Your task to perform on an android device: Open my contact list Image 0: 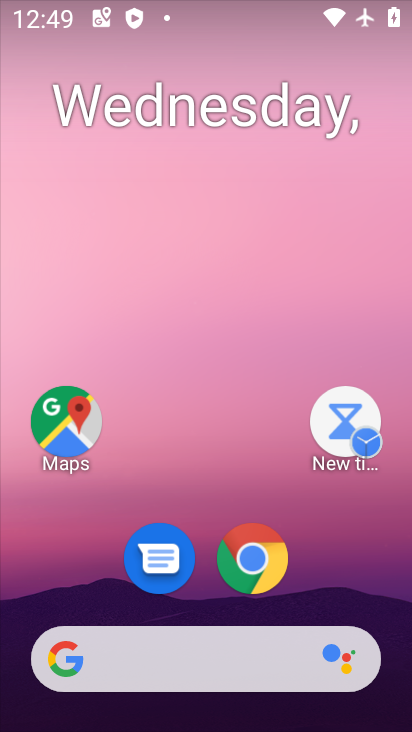
Step 0: drag from (221, 580) to (41, 30)
Your task to perform on an android device: Open my contact list Image 1: 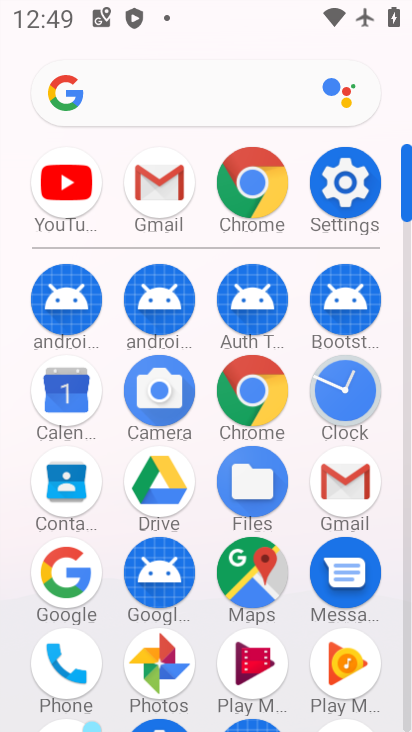
Step 1: drag from (173, 325) to (154, 194)
Your task to perform on an android device: Open my contact list Image 2: 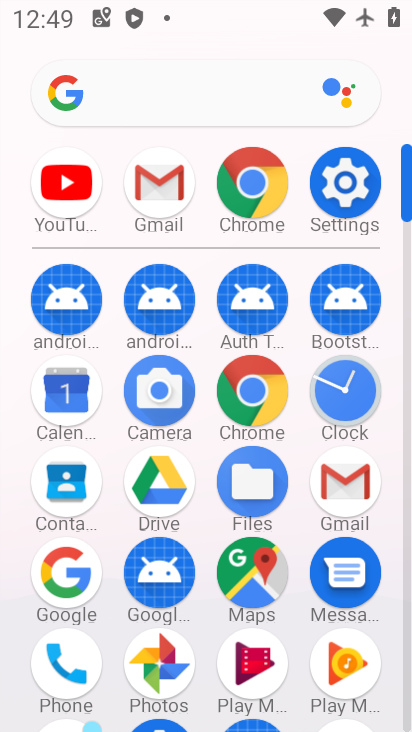
Step 2: click (183, 242)
Your task to perform on an android device: Open my contact list Image 3: 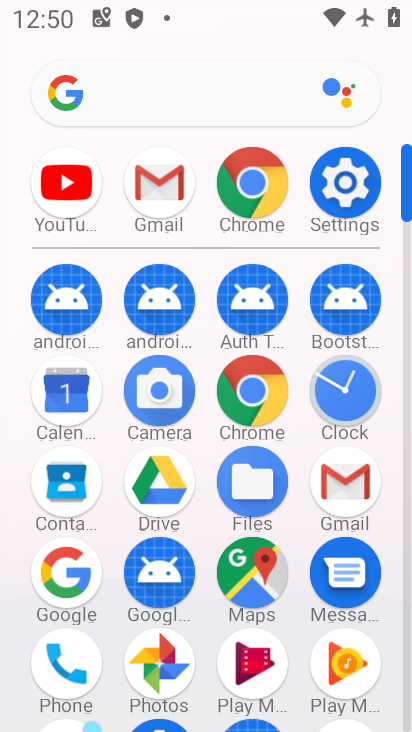
Step 3: click (76, 472)
Your task to perform on an android device: Open my contact list Image 4: 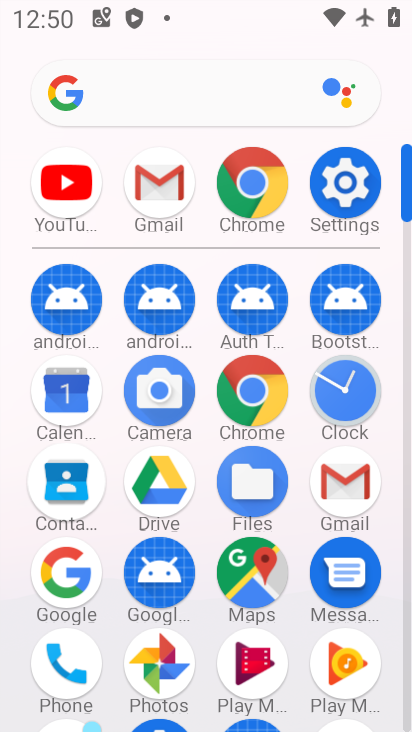
Step 4: click (75, 473)
Your task to perform on an android device: Open my contact list Image 5: 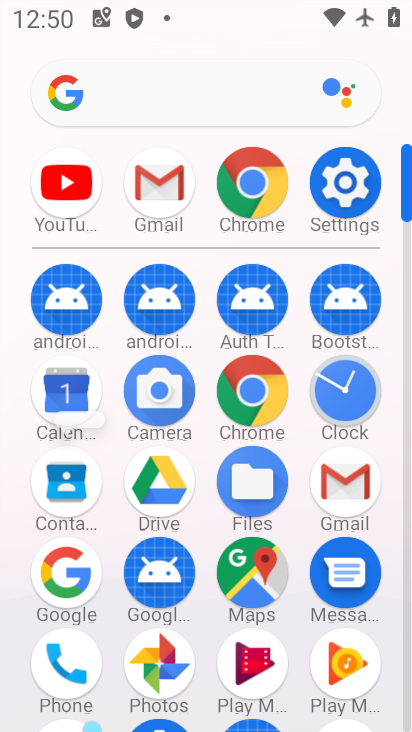
Step 5: click (68, 473)
Your task to perform on an android device: Open my contact list Image 6: 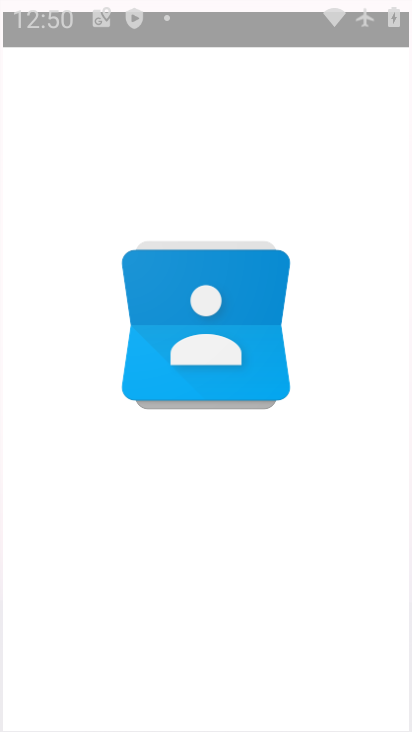
Step 6: click (71, 484)
Your task to perform on an android device: Open my contact list Image 7: 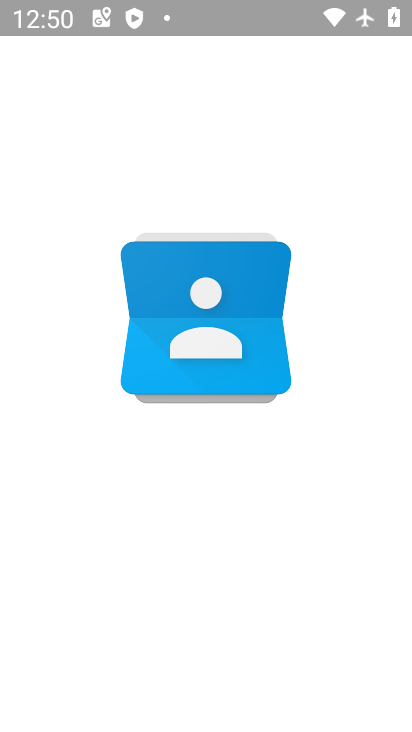
Step 7: click (72, 487)
Your task to perform on an android device: Open my contact list Image 8: 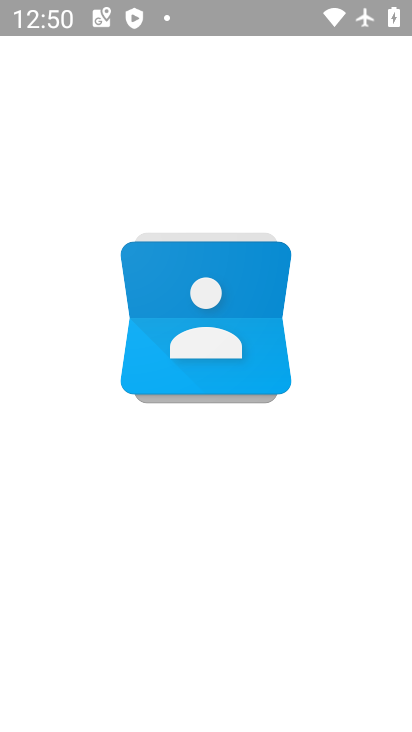
Step 8: click (72, 486)
Your task to perform on an android device: Open my contact list Image 9: 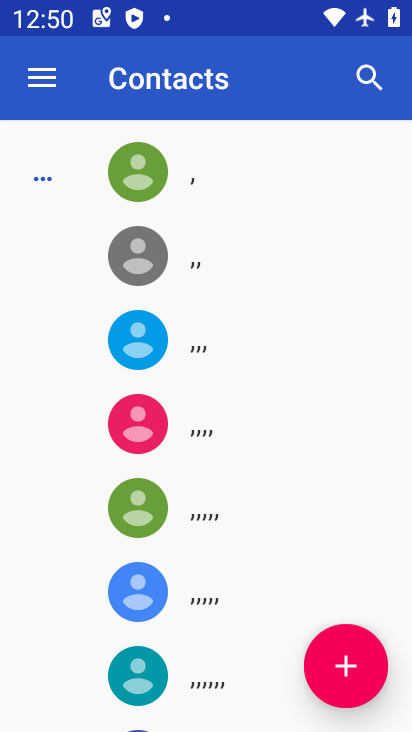
Step 9: task complete